Your task to perform on an android device: Go to battery settings Image 0: 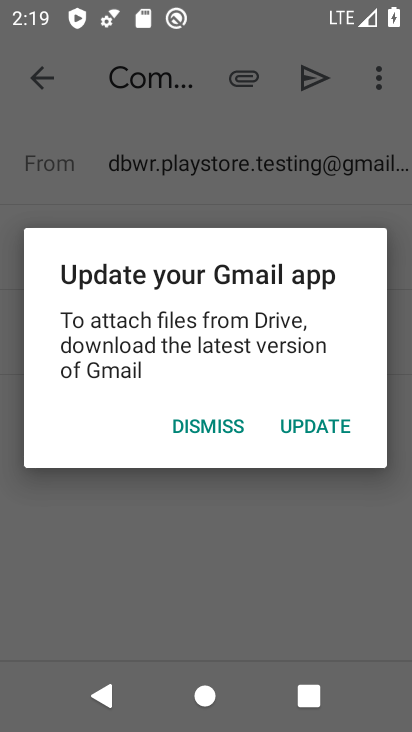
Step 0: click (222, 428)
Your task to perform on an android device: Go to battery settings Image 1: 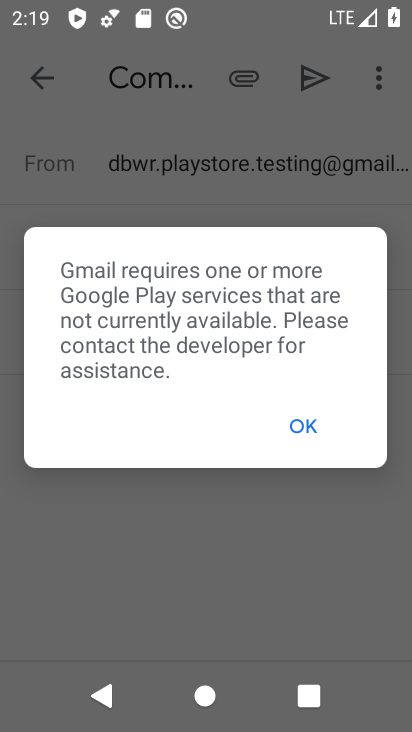
Step 1: press home button
Your task to perform on an android device: Go to battery settings Image 2: 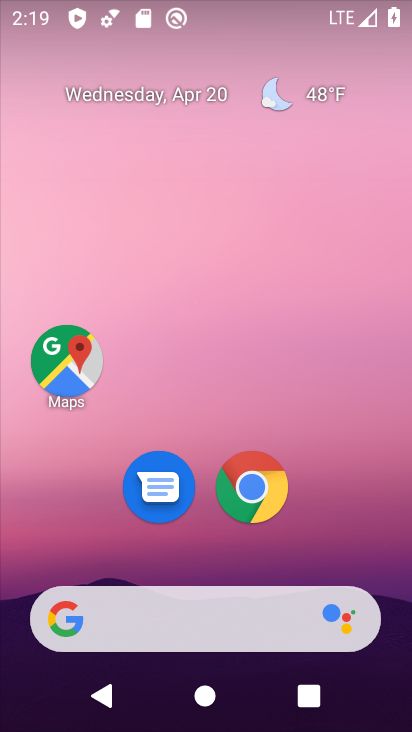
Step 2: drag from (210, 585) to (207, 241)
Your task to perform on an android device: Go to battery settings Image 3: 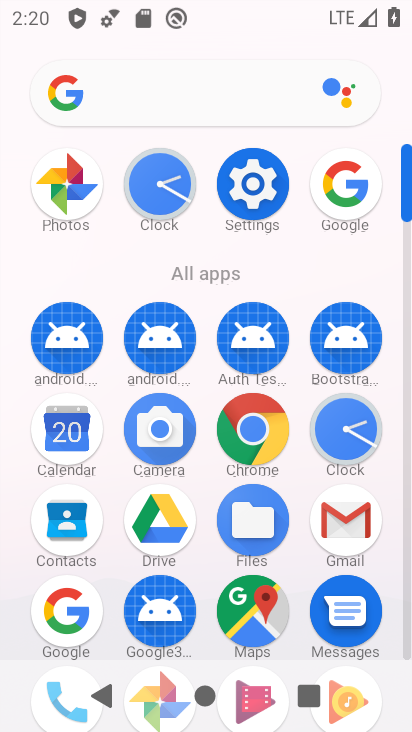
Step 3: click (271, 183)
Your task to perform on an android device: Go to battery settings Image 4: 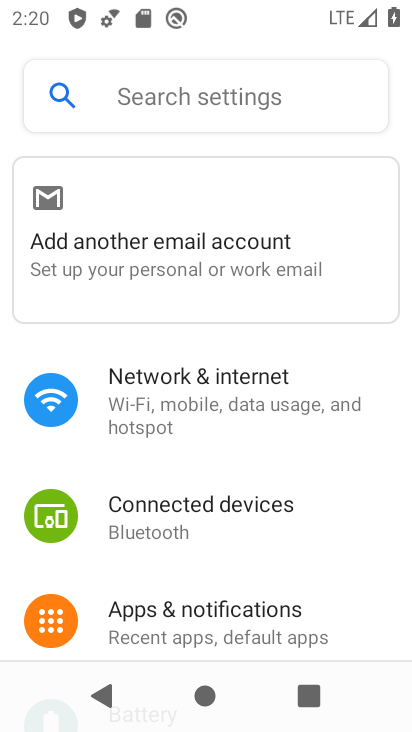
Step 4: drag from (150, 623) to (143, 355)
Your task to perform on an android device: Go to battery settings Image 5: 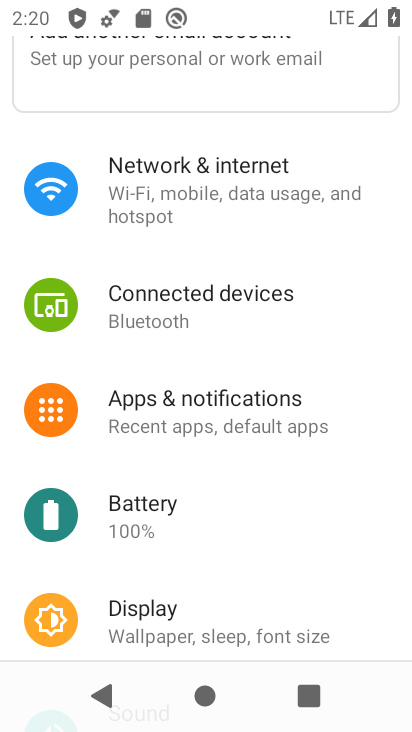
Step 5: click (155, 516)
Your task to perform on an android device: Go to battery settings Image 6: 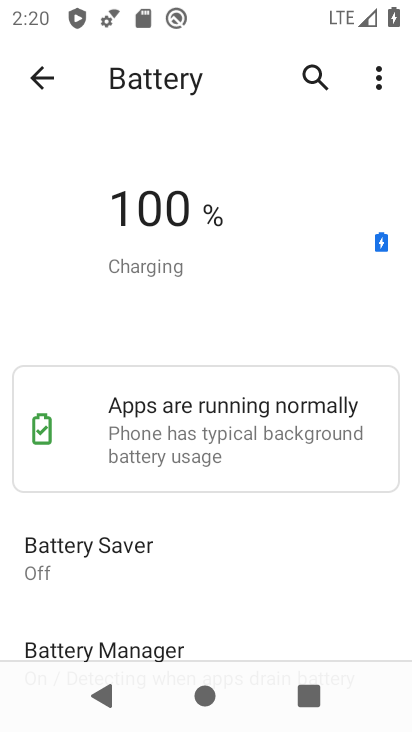
Step 6: click (376, 75)
Your task to perform on an android device: Go to battery settings Image 7: 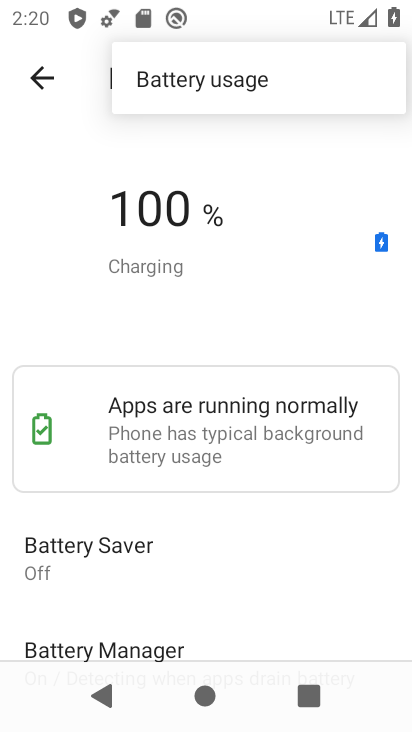
Step 7: click (172, 83)
Your task to perform on an android device: Go to battery settings Image 8: 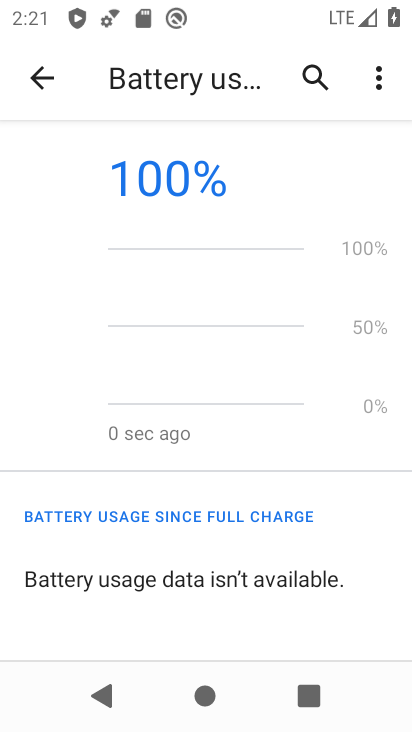
Step 8: task complete